Your task to perform on an android device: Open the calendar app, open the side menu, and click the "Day" option Image 0: 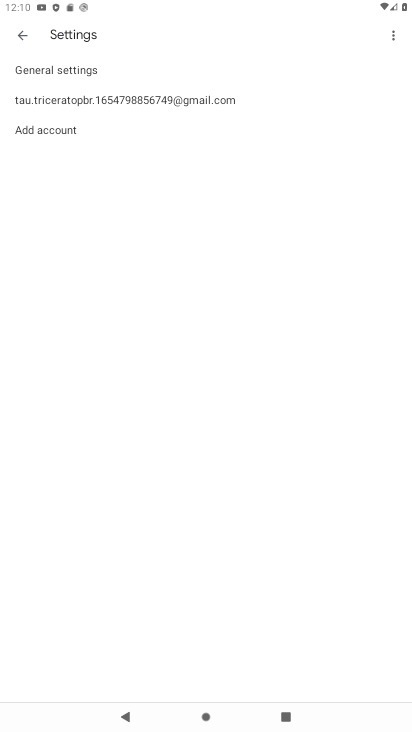
Step 0: press home button
Your task to perform on an android device: Open the calendar app, open the side menu, and click the "Day" option Image 1: 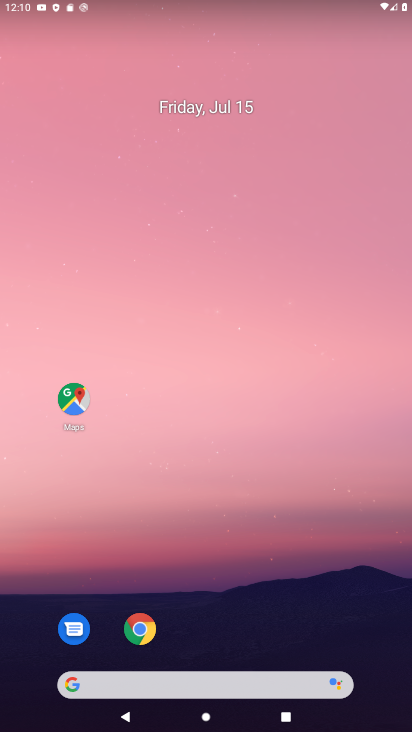
Step 1: drag from (324, 471) to (251, 32)
Your task to perform on an android device: Open the calendar app, open the side menu, and click the "Day" option Image 2: 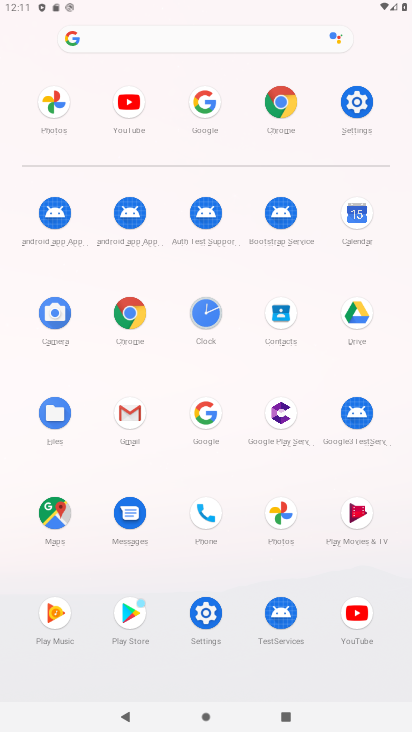
Step 2: click (358, 212)
Your task to perform on an android device: Open the calendar app, open the side menu, and click the "Day" option Image 3: 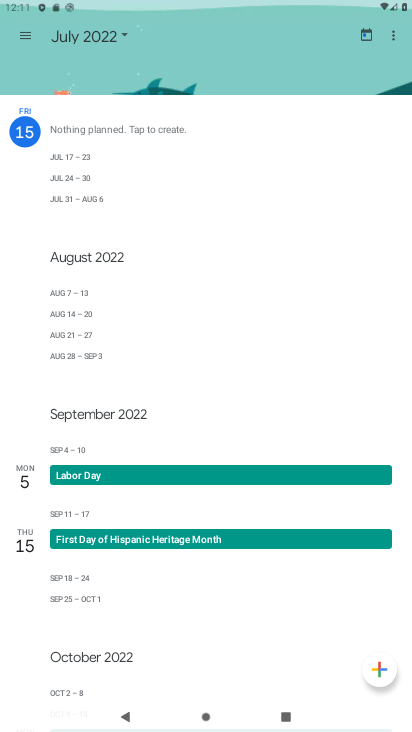
Step 3: click (30, 40)
Your task to perform on an android device: Open the calendar app, open the side menu, and click the "Day" option Image 4: 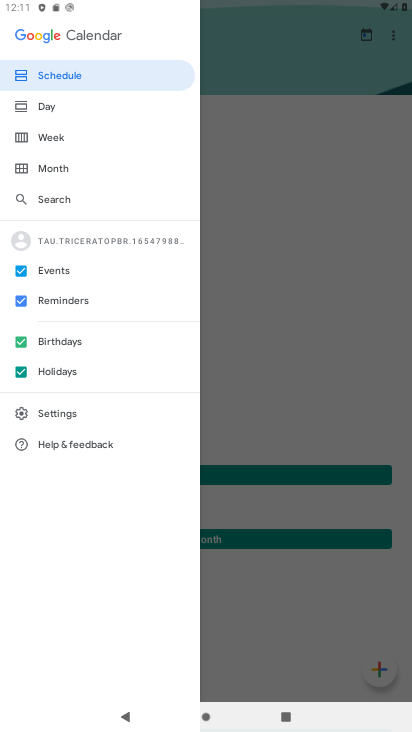
Step 4: click (30, 106)
Your task to perform on an android device: Open the calendar app, open the side menu, and click the "Day" option Image 5: 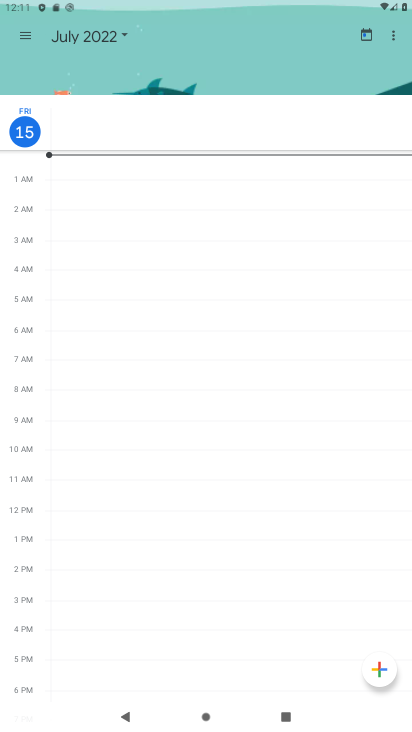
Step 5: task complete